Your task to perform on an android device: Open the phone app and click the voicemail tab. Image 0: 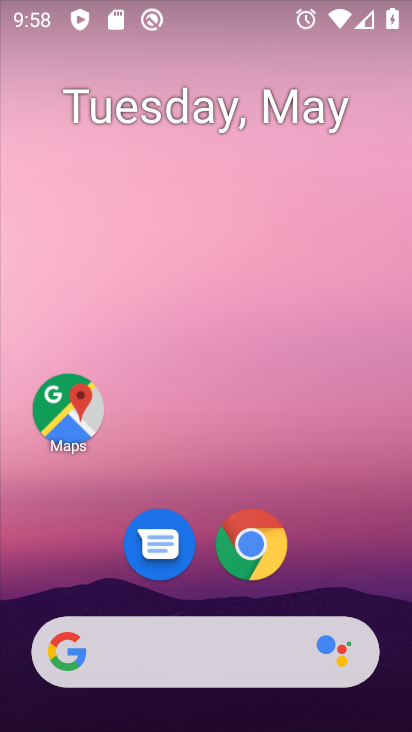
Step 0: drag from (343, 469) to (343, 169)
Your task to perform on an android device: Open the phone app and click the voicemail tab. Image 1: 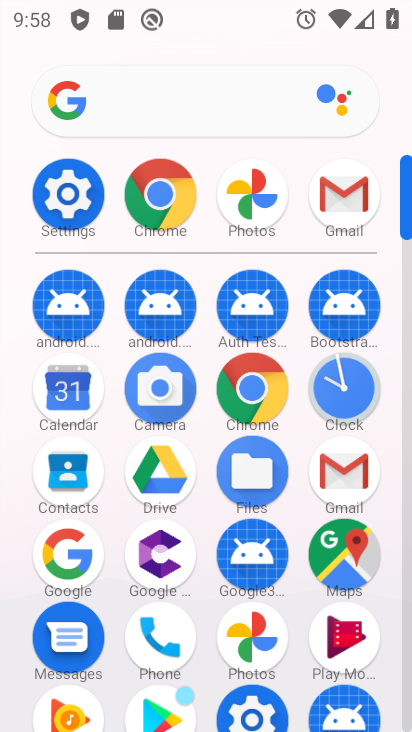
Step 1: drag from (209, 556) to (205, 382)
Your task to perform on an android device: Open the phone app and click the voicemail tab. Image 2: 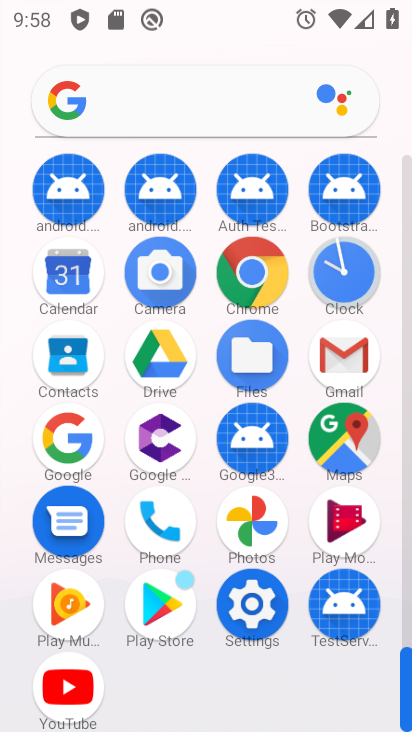
Step 2: click (152, 525)
Your task to perform on an android device: Open the phone app and click the voicemail tab. Image 3: 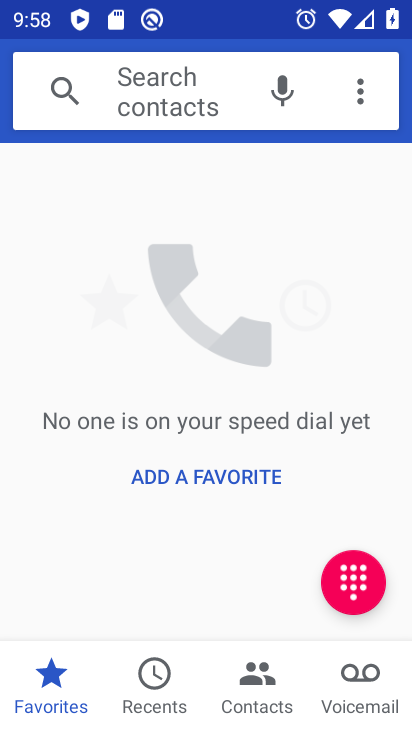
Step 3: click (371, 670)
Your task to perform on an android device: Open the phone app and click the voicemail tab. Image 4: 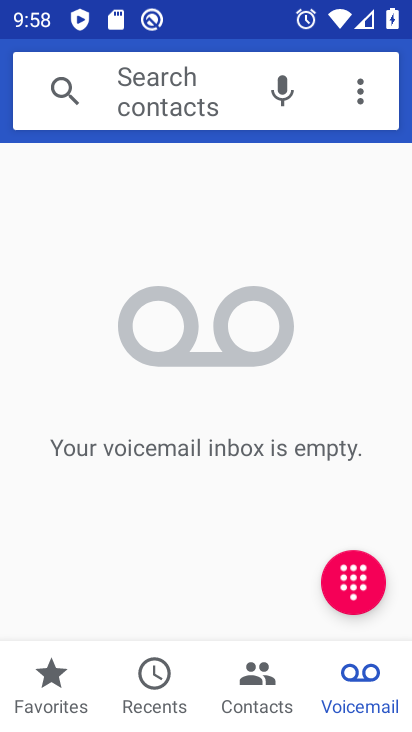
Step 4: task complete